Your task to perform on an android device: Go to Reddit.com Image 0: 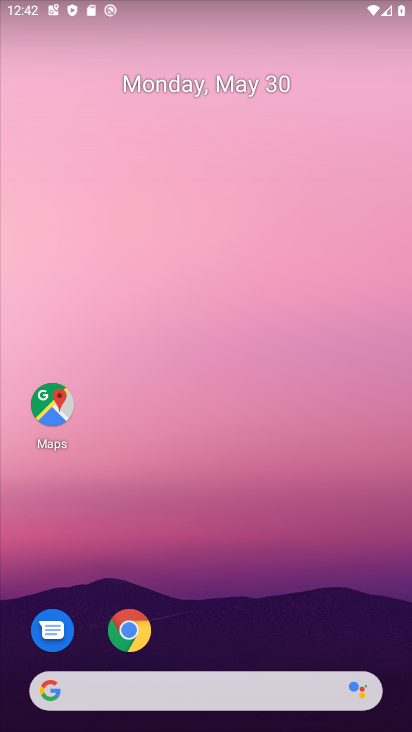
Step 0: click (195, 689)
Your task to perform on an android device: Go to Reddit.com Image 1: 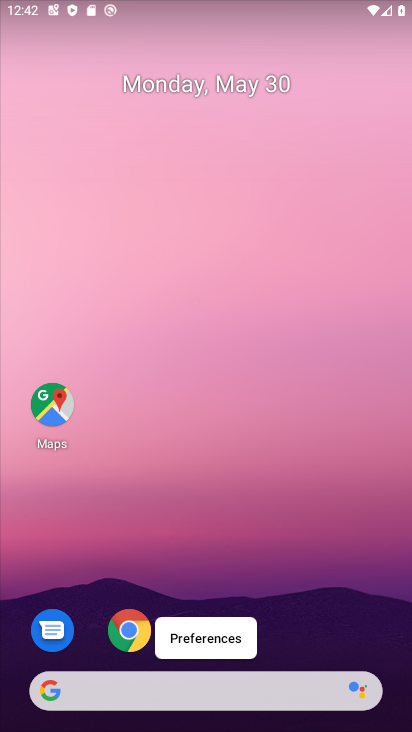
Step 1: click (186, 687)
Your task to perform on an android device: Go to Reddit.com Image 2: 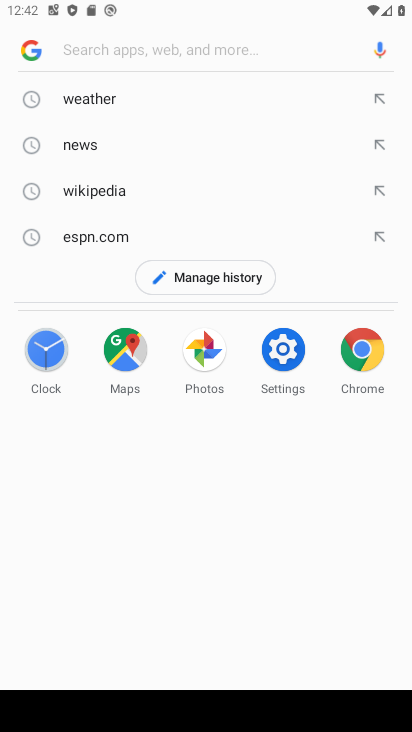
Step 2: type "Reddit.com"
Your task to perform on an android device: Go to Reddit.com Image 3: 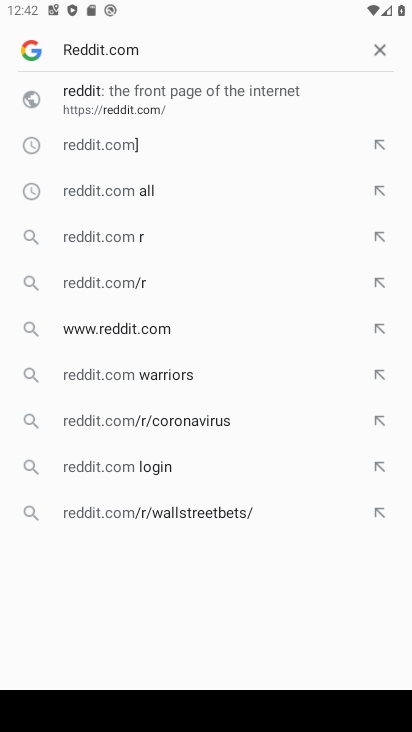
Step 3: click (160, 118)
Your task to perform on an android device: Go to Reddit.com Image 4: 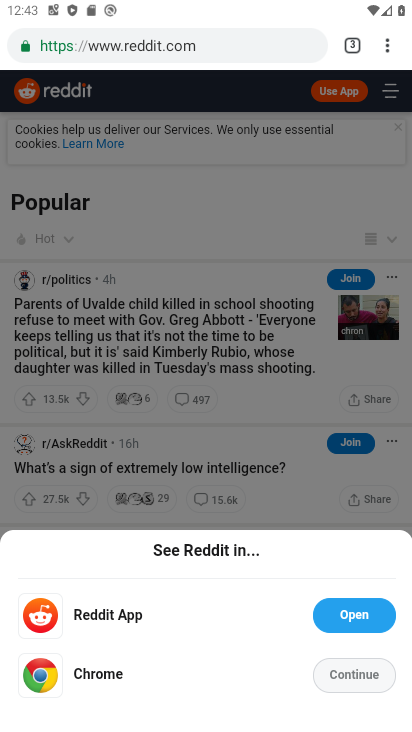
Step 4: click (366, 668)
Your task to perform on an android device: Go to Reddit.com Image 5: 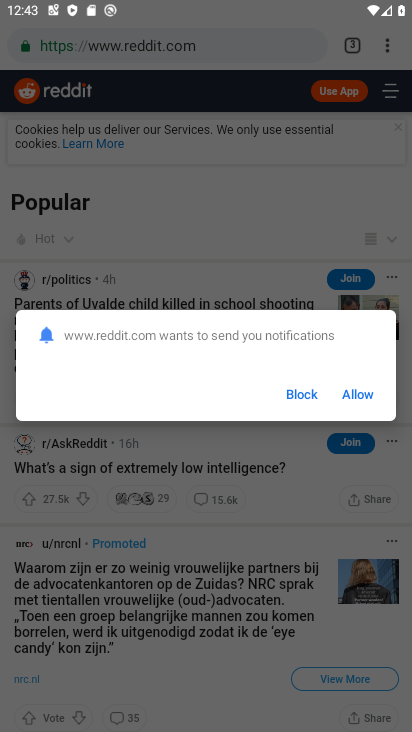
Step 5: click (371, 391)
Your task to perform on an android device: Go to Reddit.com Image 6: 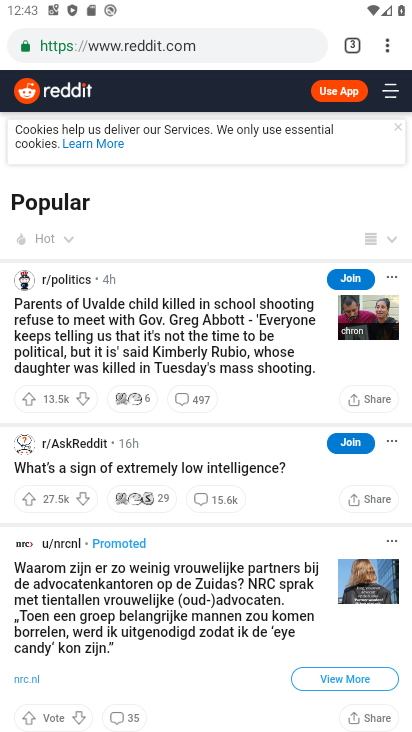
Step 6: task complete